Your task to perform on an android device: turn off location Image 0: 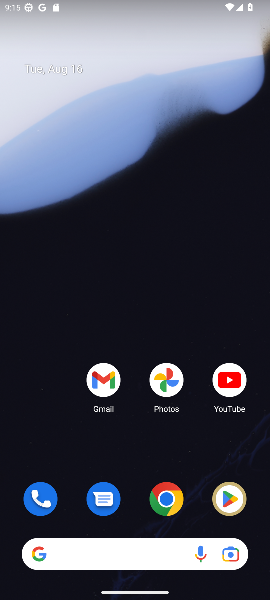
Step 0: drag from (132, 522) to (119, 84)
Your task to perform on an android device: turn off location Image 1: 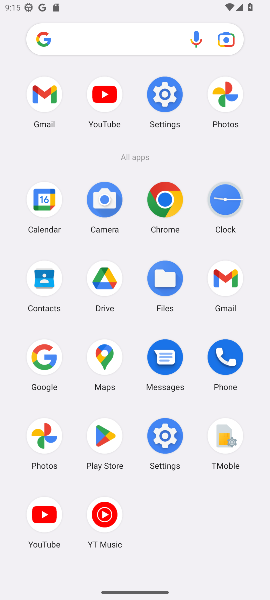
Step 1: click (159, 97)
Your task to perform on an android device: turn off location Image 2: 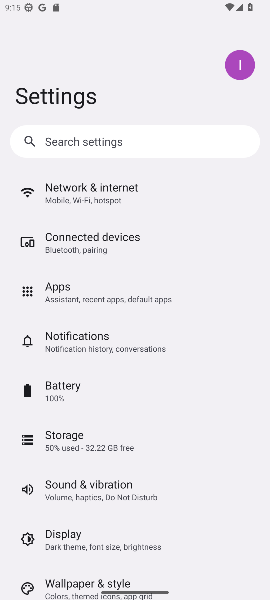
Step 2: drag from (84, 465) to (111, 229)
Your task to perform on an android device: turn off location Image 3: 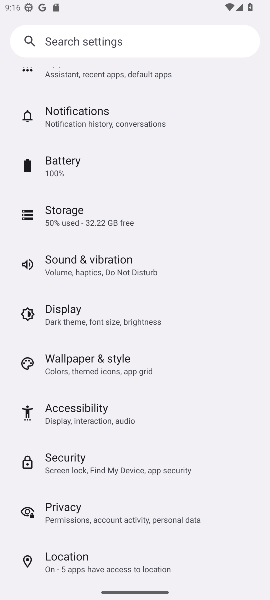
Step 3: click (69, 563)
Your task to perform on an android device: turn off location Image 4: 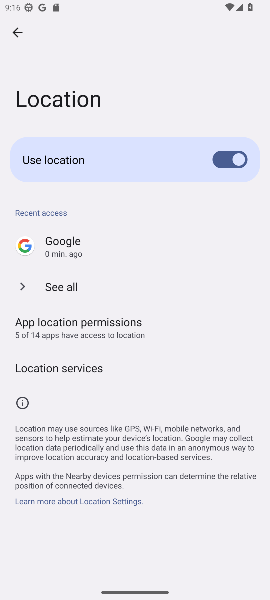
Step 4: task complete